Your task to perform on an android device: open a new tab in the chrome app Image 0: 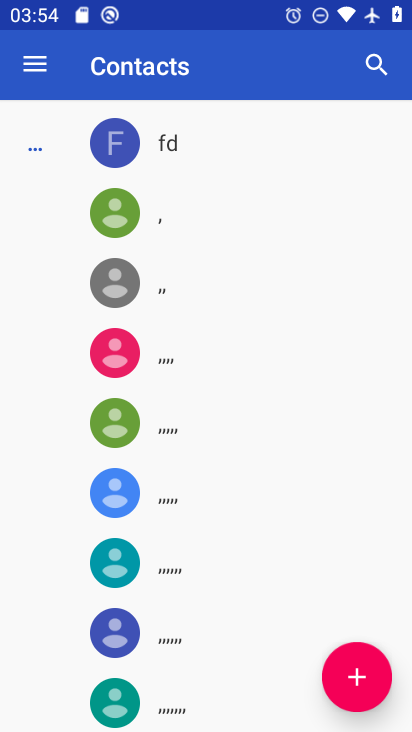
Step 0: press home button
Your task to perform on an android device: open a new tab in the chrome app Image 1: 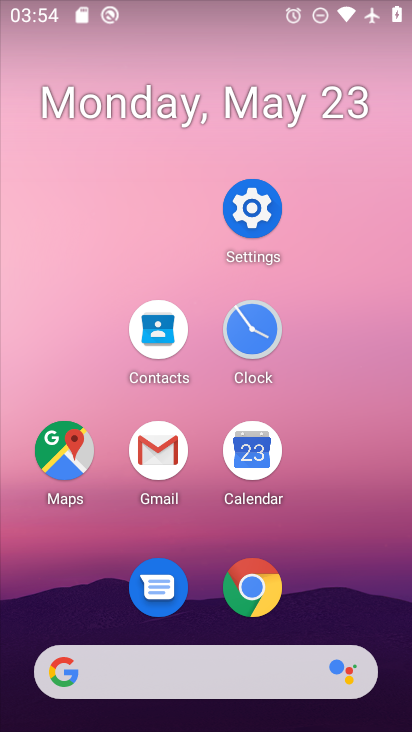
Step 1: click (249, 608)
Your task to perform on an android device: open a new tab in the chrome app Image 2: 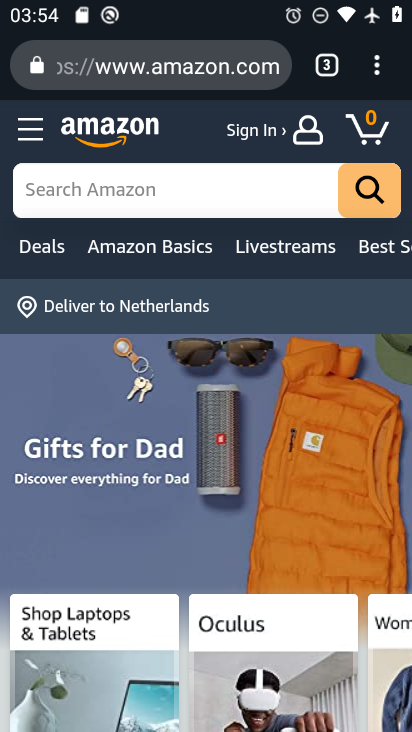
Step 2: click (331, 77)
Your task to perform on an android device: open a new tab in the chrome app Image 3: 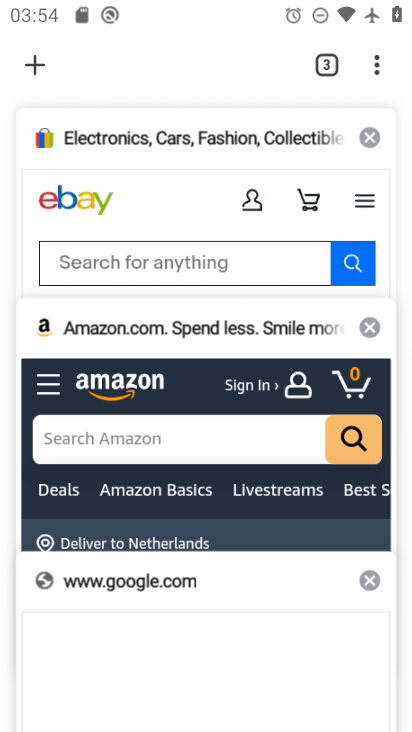
Step 3: click (43, 82)
Your task to perform on an android device: open a new tab in the chrome app Image 4: 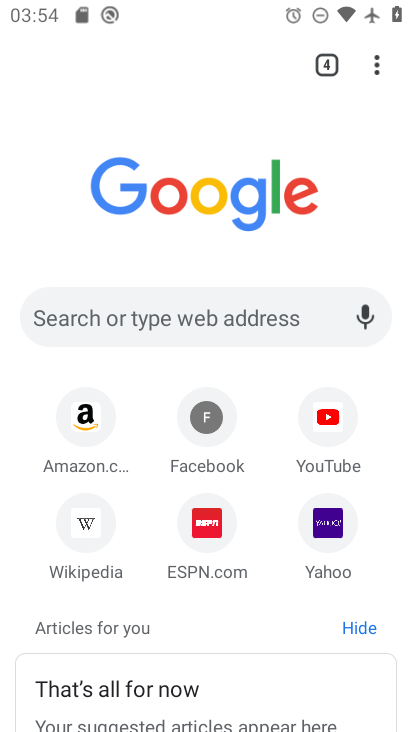
Step 4: task complete